Your task to perform on an android device: turn on improve location accuracy Image 0: 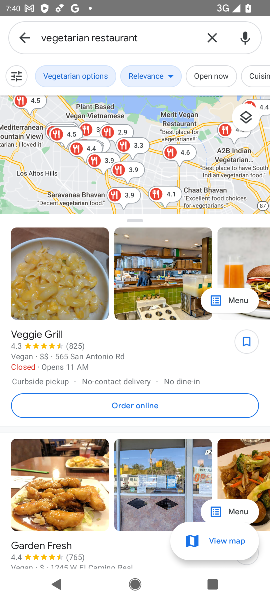
Step 0: press home button
Your task to perform on an android device: turn on improve location accuracy Image 1: 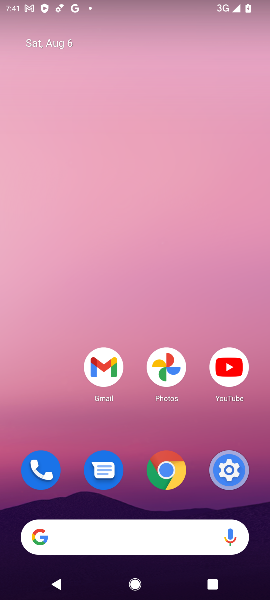
Step 1: drag from (132, 499) to (142, 92)
Your task to perform on an android device: turn on improve location accuracy Image 2: 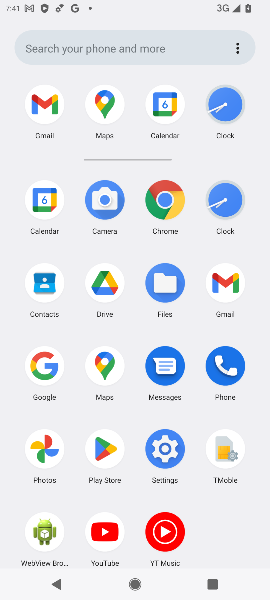
Step 2: click (165, 463)
Your task to perform on an android device: turn on improve location accuracy Image 3: 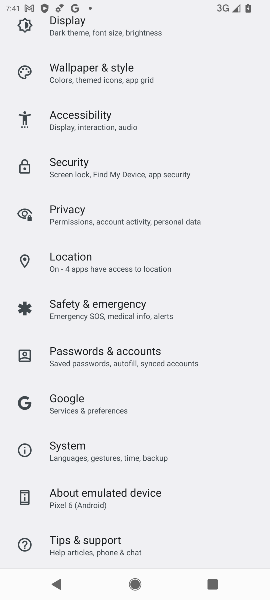
Step 3: drag from (157, 226) to (121, 495)
Your task to perform on an android device: turn on improve location accuracy Image 4: 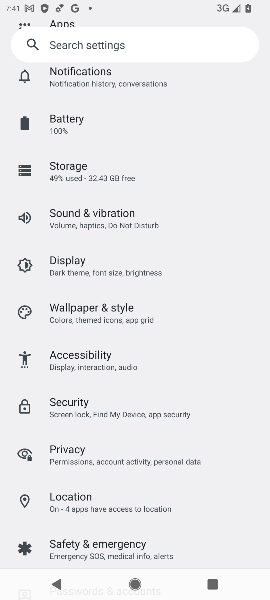
Step 4: click (100, 507)
Your task to perform on an android device: turn on improve location accuracy Image 5: 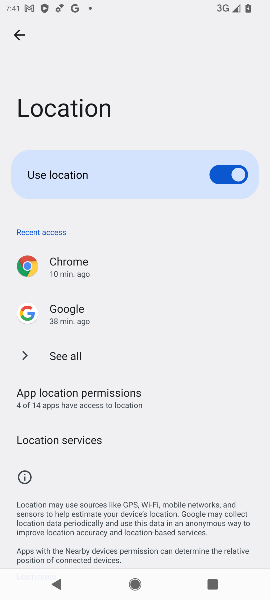
Step 5: drag from (91, 472) to (115, 203)
Your task to perform on an android device: turn on improve location accuracy Image 6: 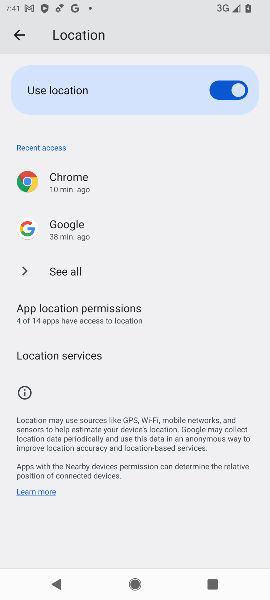
Step 6: click (92, 275)
Your task to perform on an android device: turn on improve location accuracy Image 7: 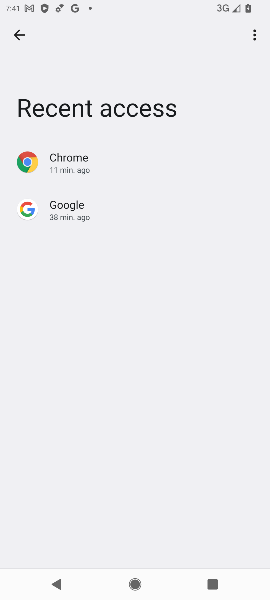
Step 7: click (18, 34)
Your task to perform on an android device: turn on improve location accuracy Image 8: 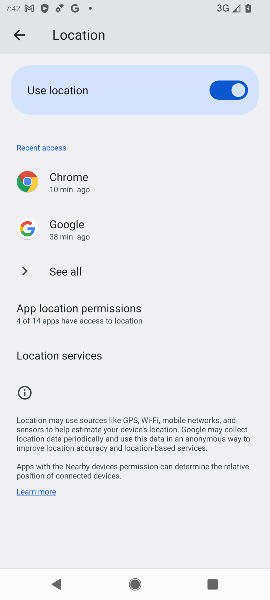
Step 8: task complete